Your task to perform on an android device: Add razer blackwidow to the cart on newegg, then select checkout. Image 0: 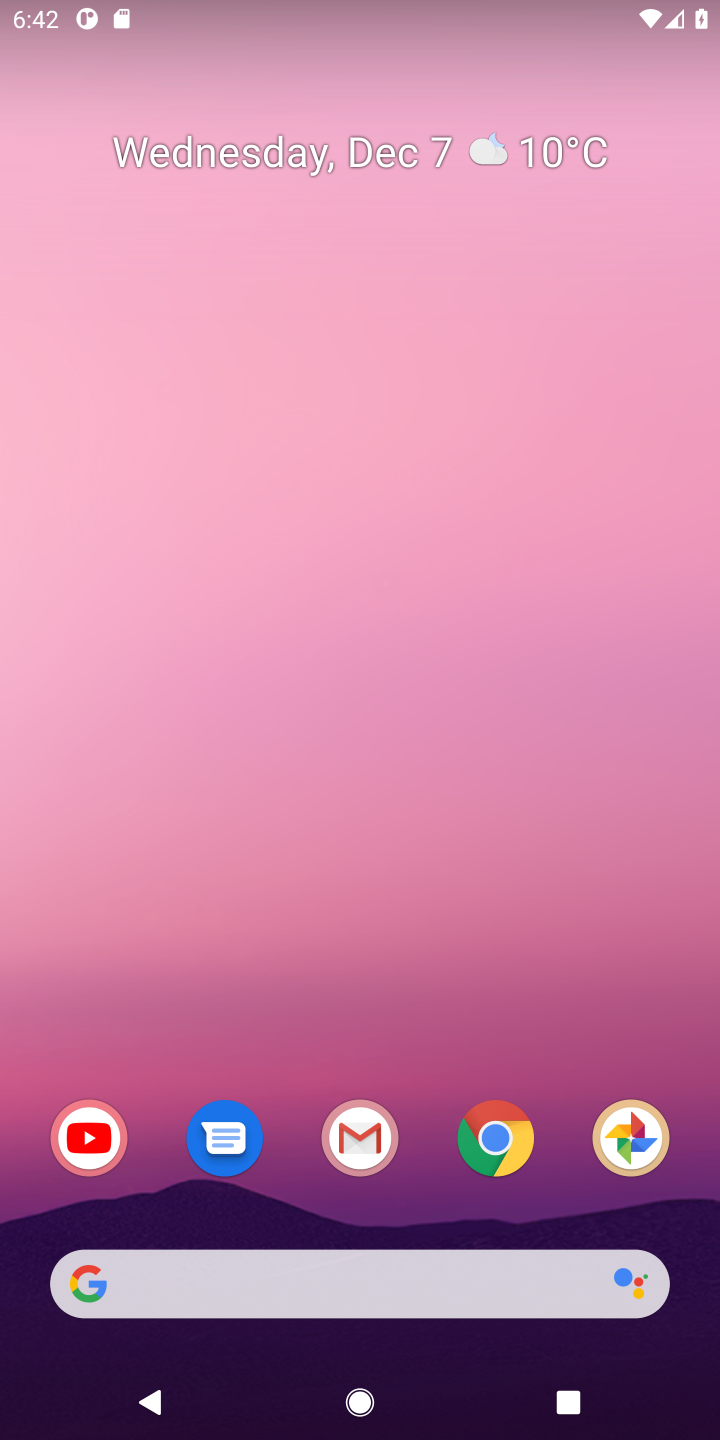
Step 0: press home button
Your task to perform on an android device: Add razer blackwidow to the cart on newegg, then select checkout. Image 1: 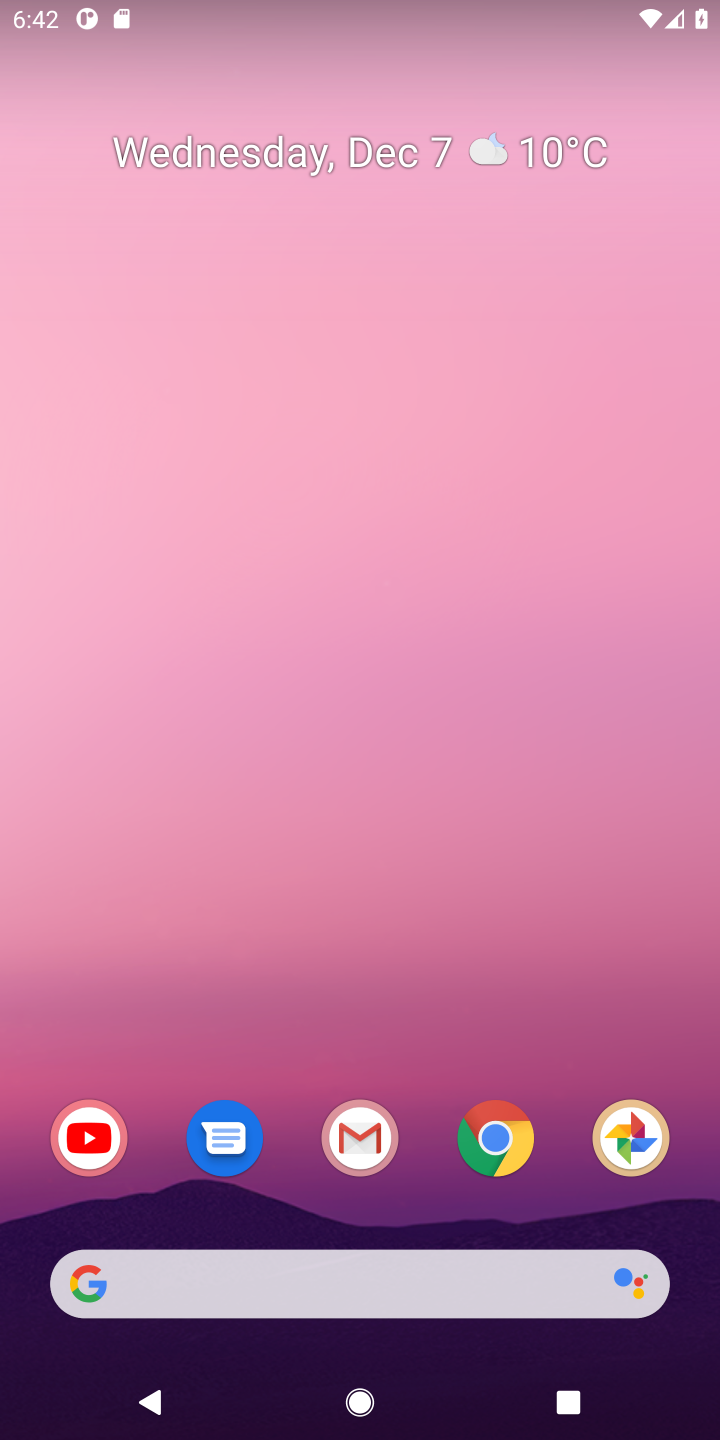
Step 1: click (144, 1276)
Your task to perform on an android device: Add razer blackwidow to the cart on newegg, then select checkout. Image 2: 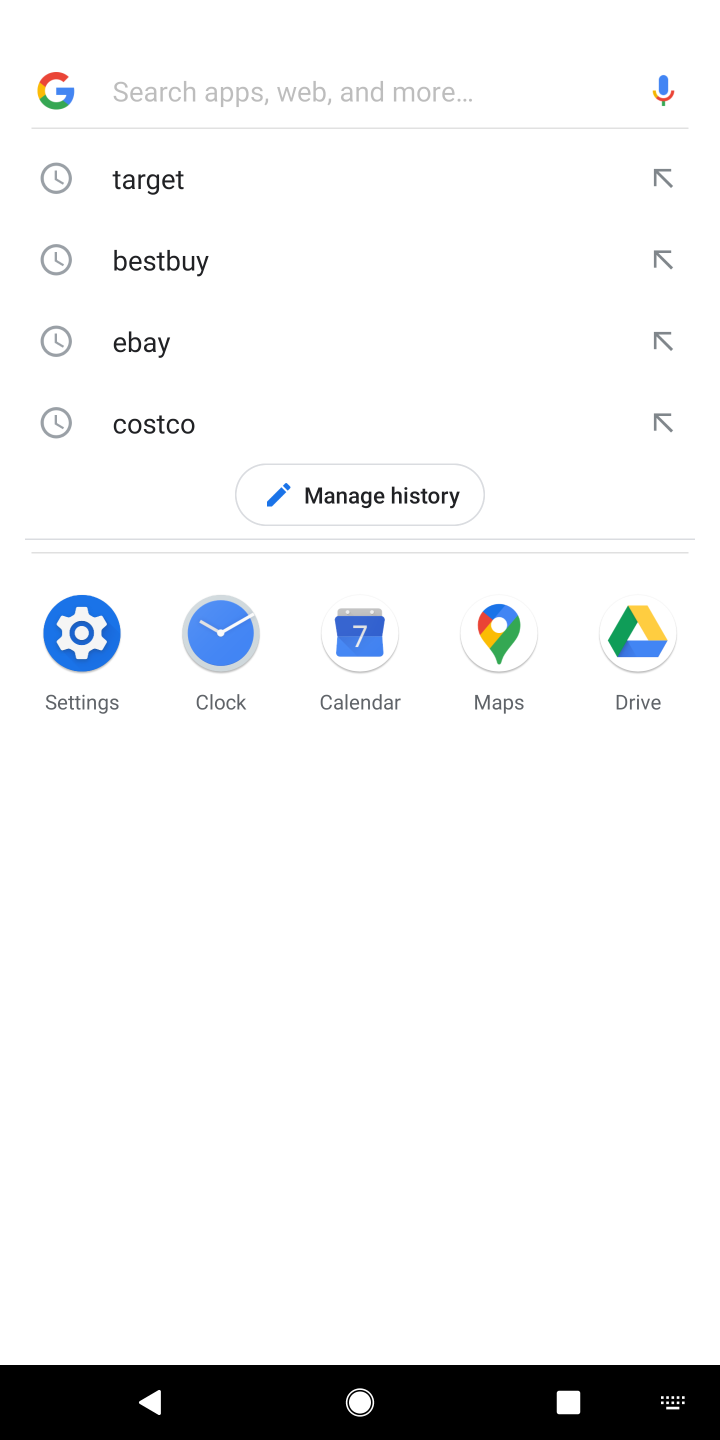
Step 2: press enter
Your task to perform on an android device: Add razer blackwidow to the cart on newegg, then select checkout. Image 3: 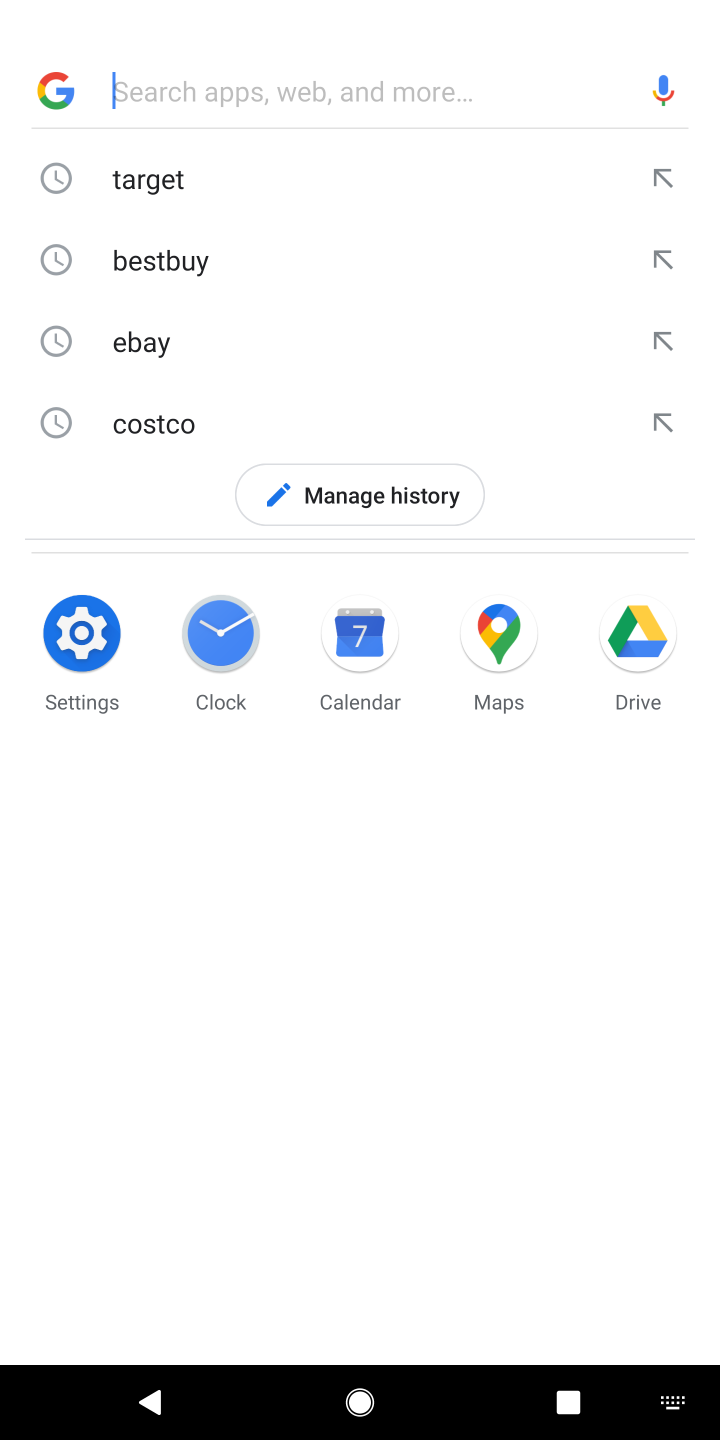
Step 3: type "newegg"
Your task to perform on an android device: Add razer blackwidow to the cart on newegg, then select checkout. Image 4: 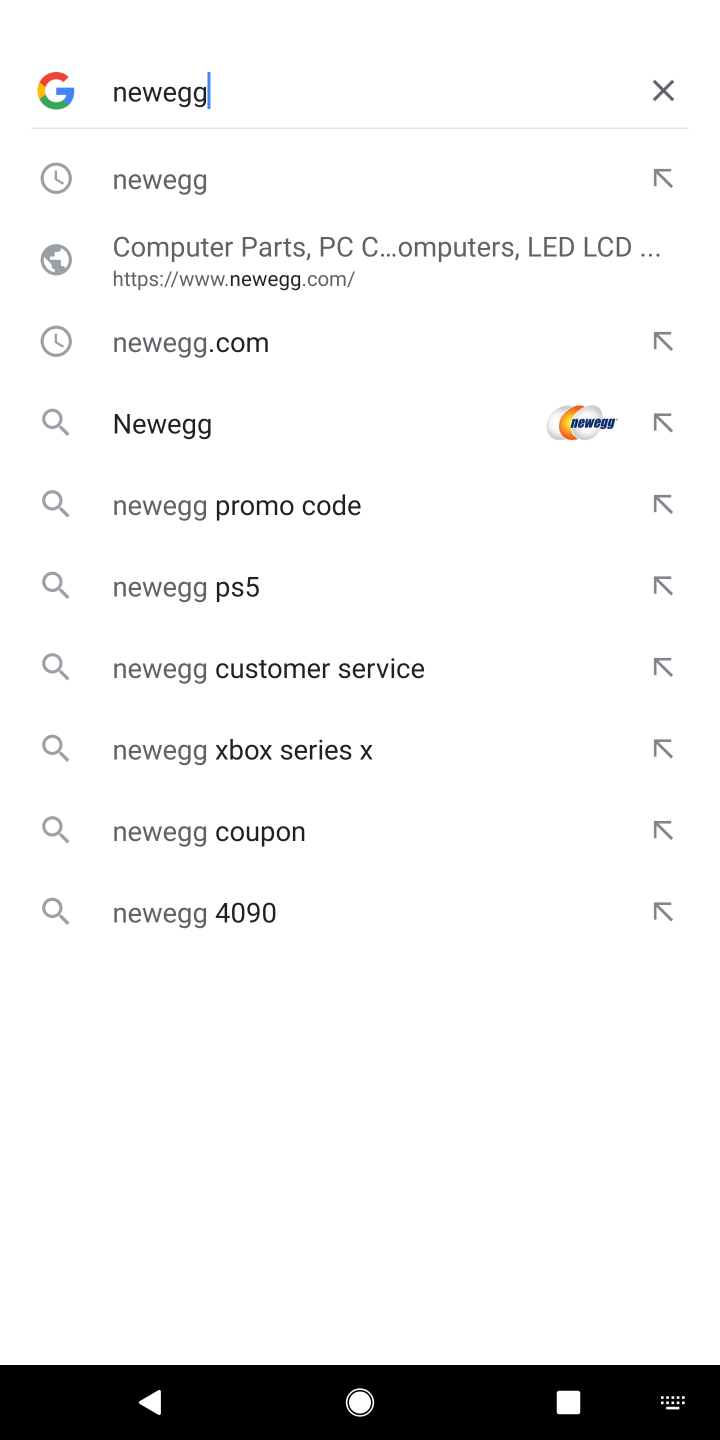
Step 4: press enter
Your task to perform on an android device: Add razer blackwidow to the cart on newegg, then select checkout. Image 5: 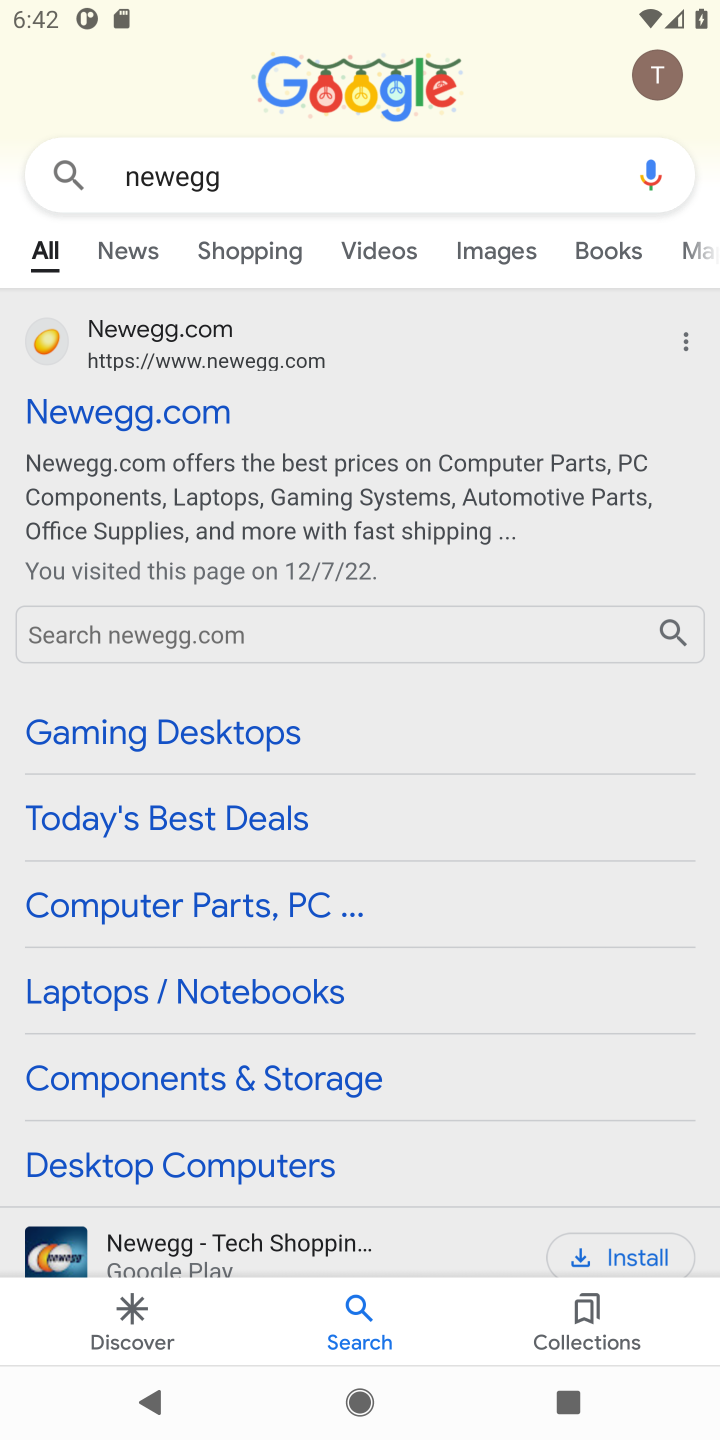
Step 5: click (132, 410)
Your task to perform on an android device: Add razer blackwidow to the cart on newegg, then select checkout. Image 6: 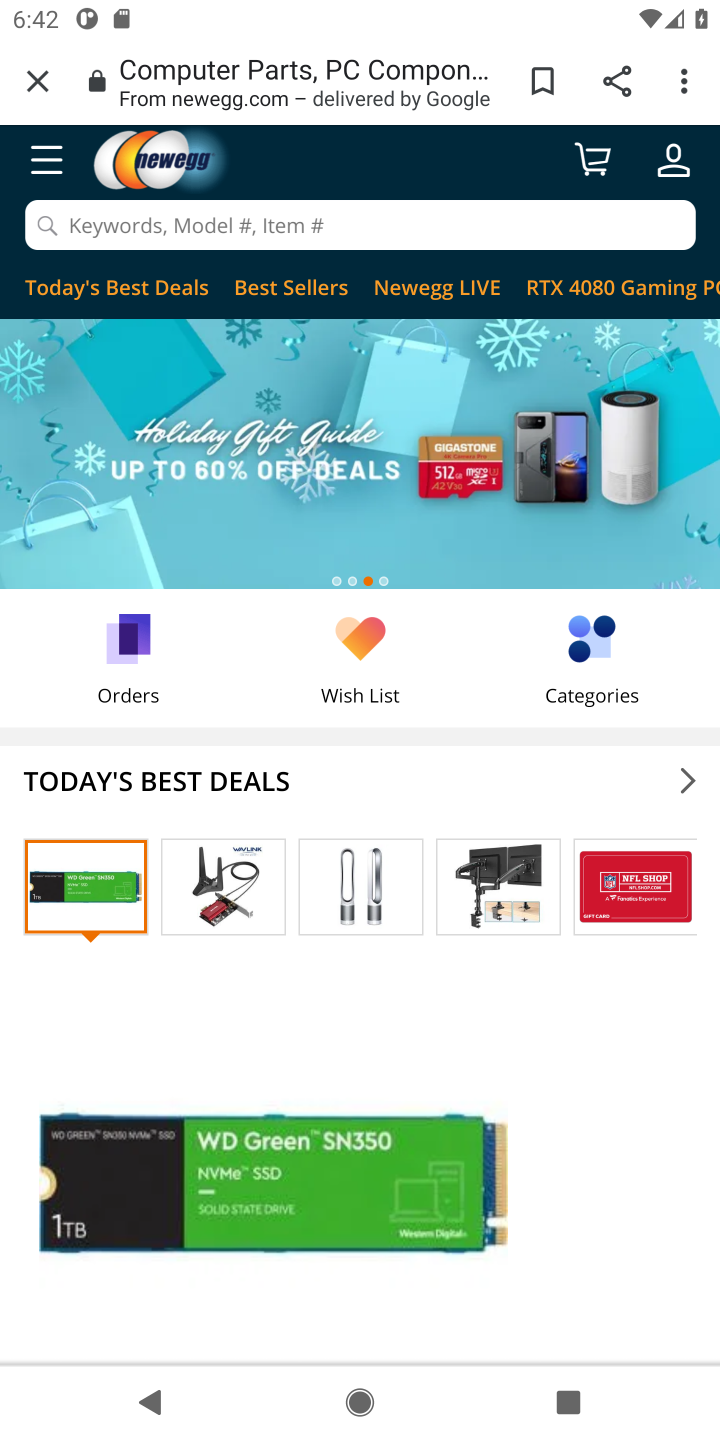
Step 6: click (286, 224)
Your task to perform on an android device: Add razer blackwidow to the cart on newegg, then select checkout. Image 7: 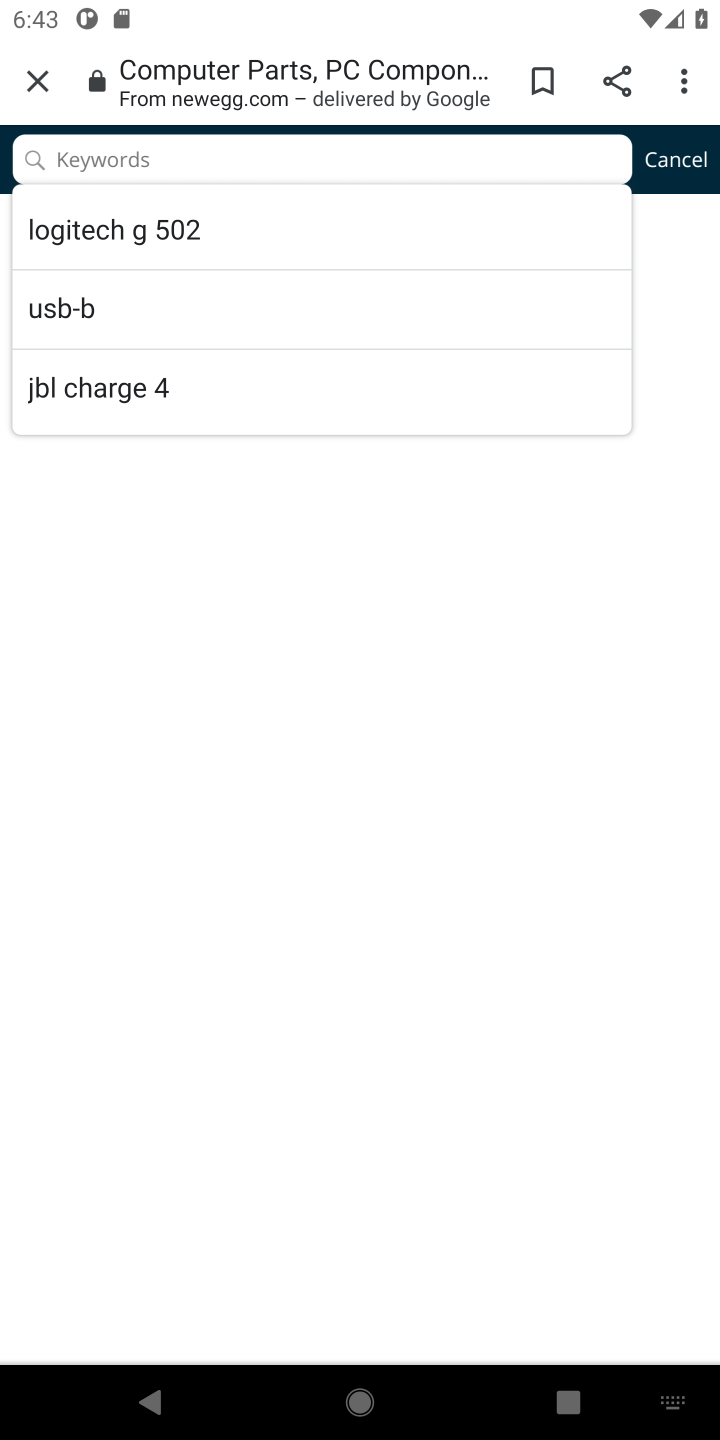
Step 7: type "razer blackwidow"
Your task to perform on an android device: Add razer blackwidow to the cart on newegg, then select checkout. Image 8: 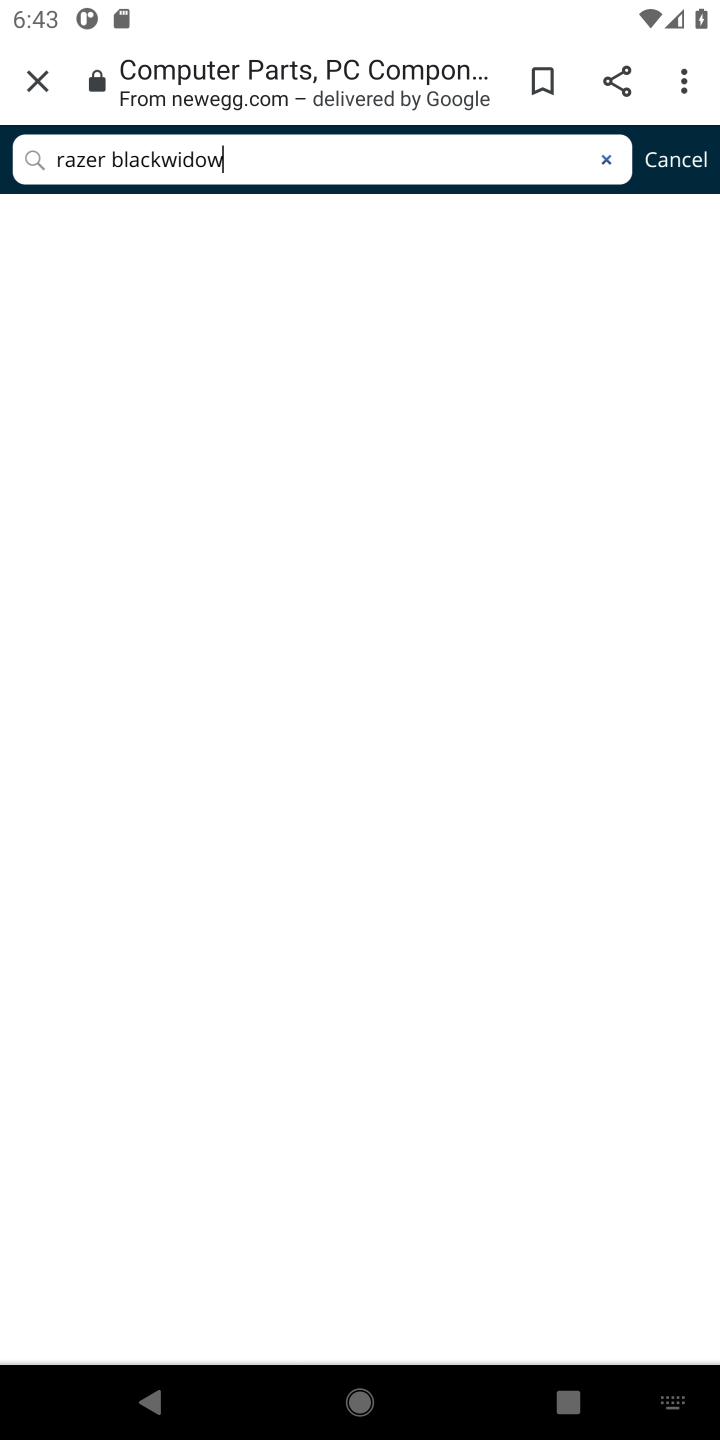
Step 8: press enter
Your task to perform on an android device: Add razer blackwidow to the cart on newegg, then select checkout. Image 9: 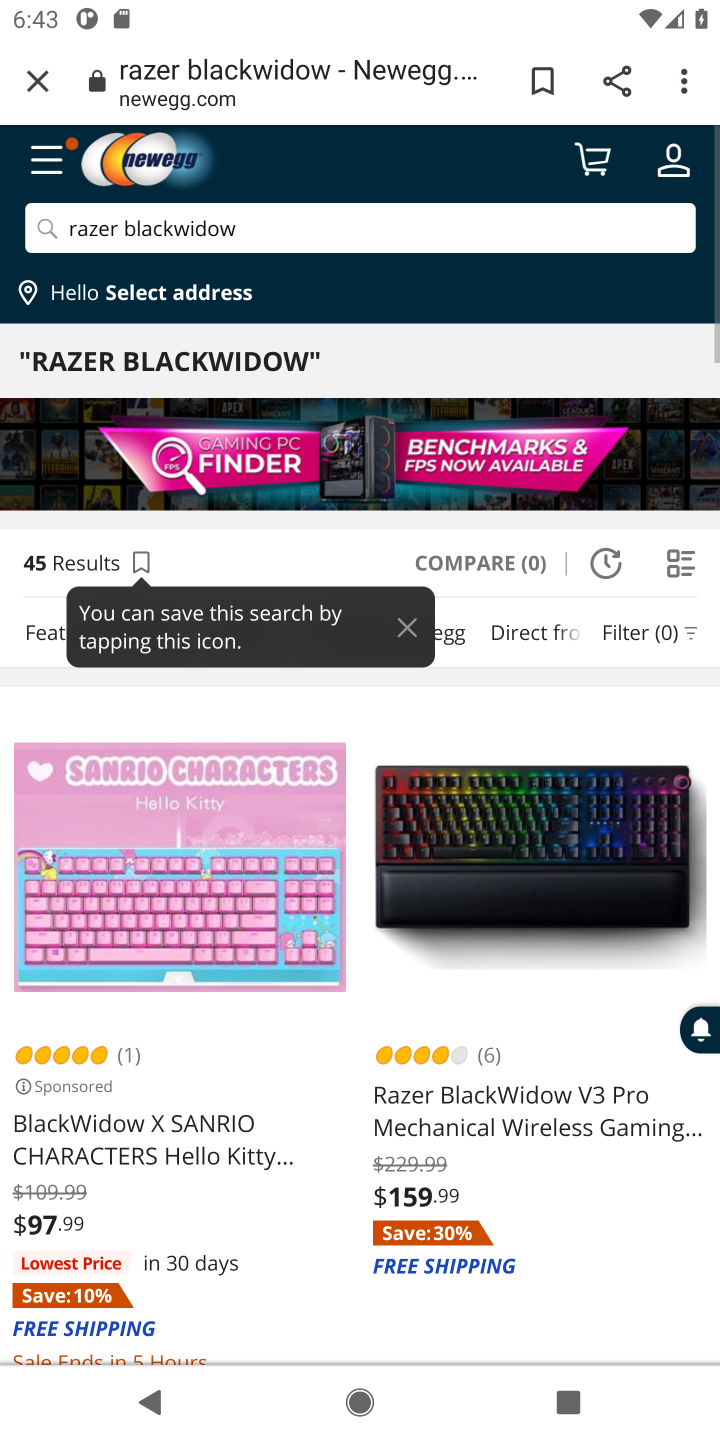
Step 9: click (505, 1089)
Your task to perform on an android device: Add razer blackwidow to the cart on newegg, then select checkout. Image 10: 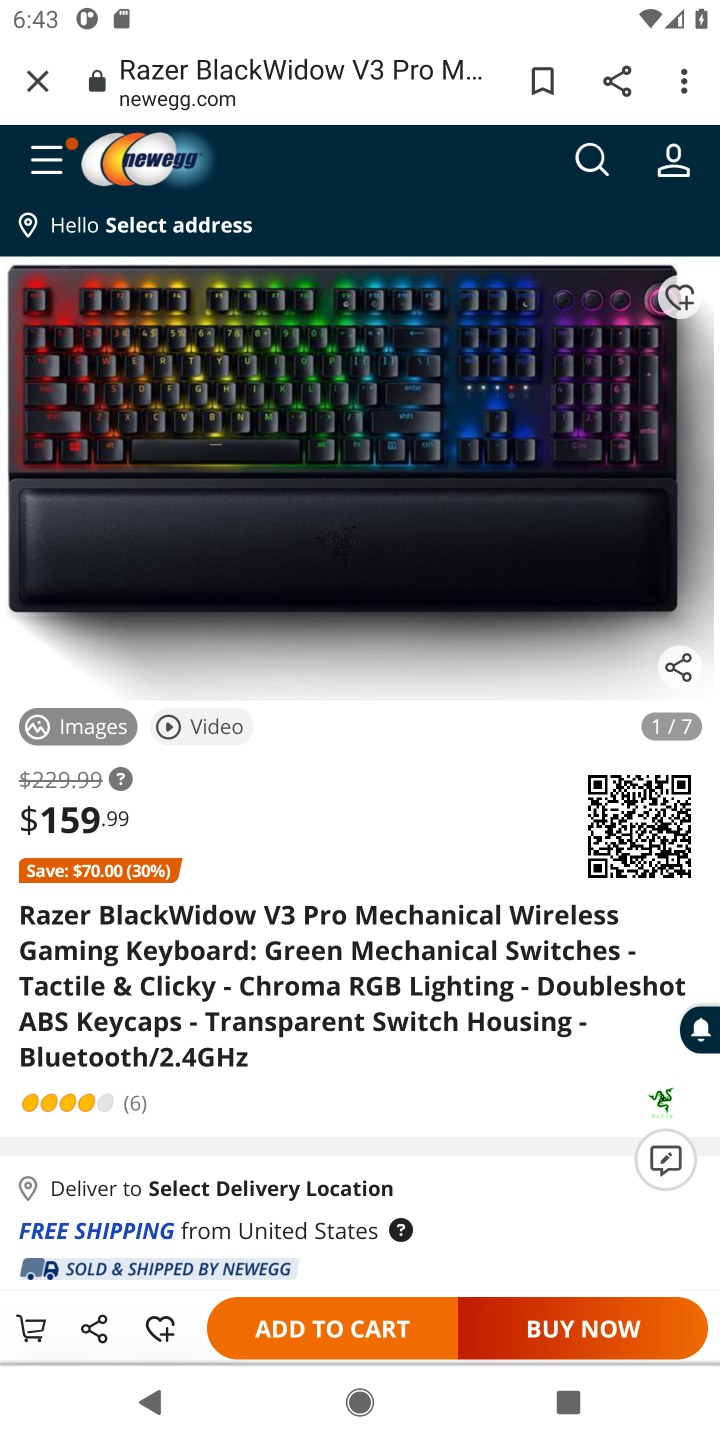
Step 10: click (324, 1336)
Your task to perform on an android device: Add razer blackwidow to the cart on newegg, then select checkout. Image 11: 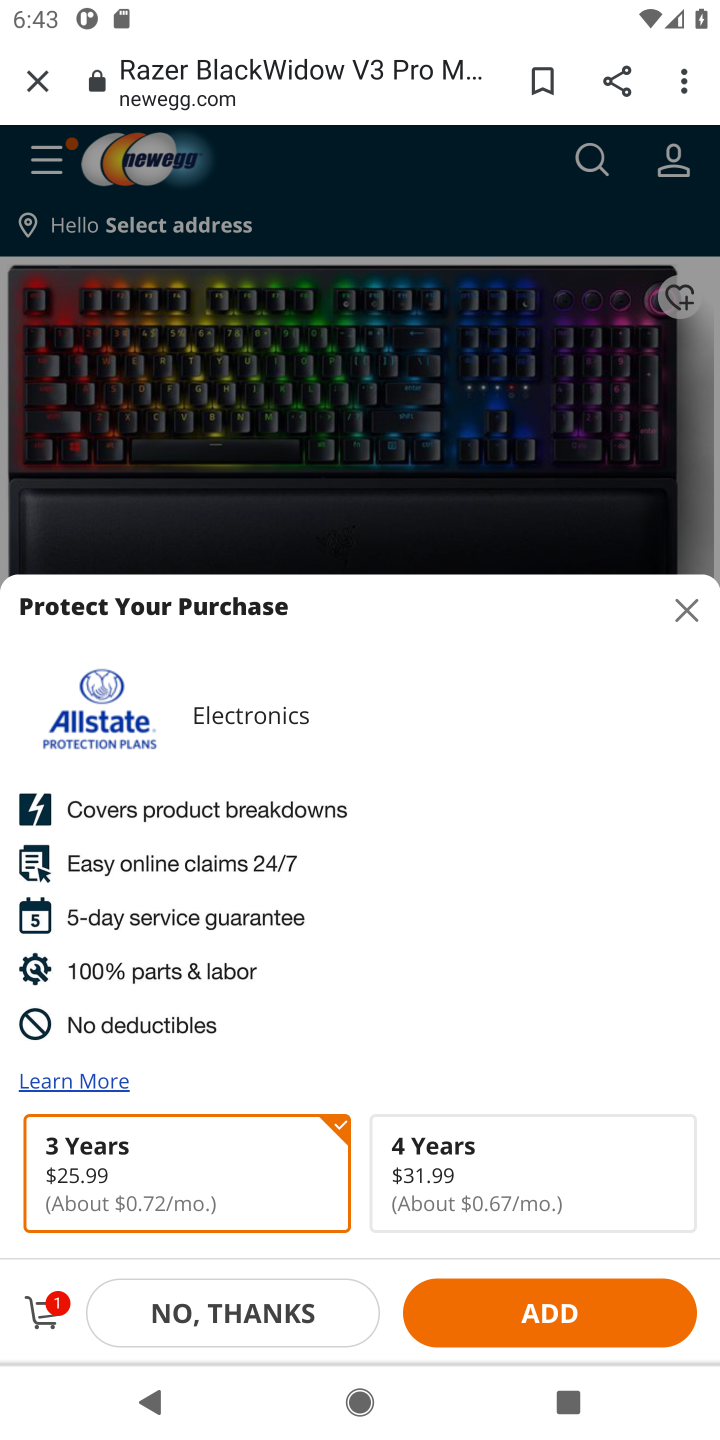
Step 11: click (216, 1320)
Your task to perform on an android device: Add razer blackwidow to the cart on newegg, then select checkout. Image 12: 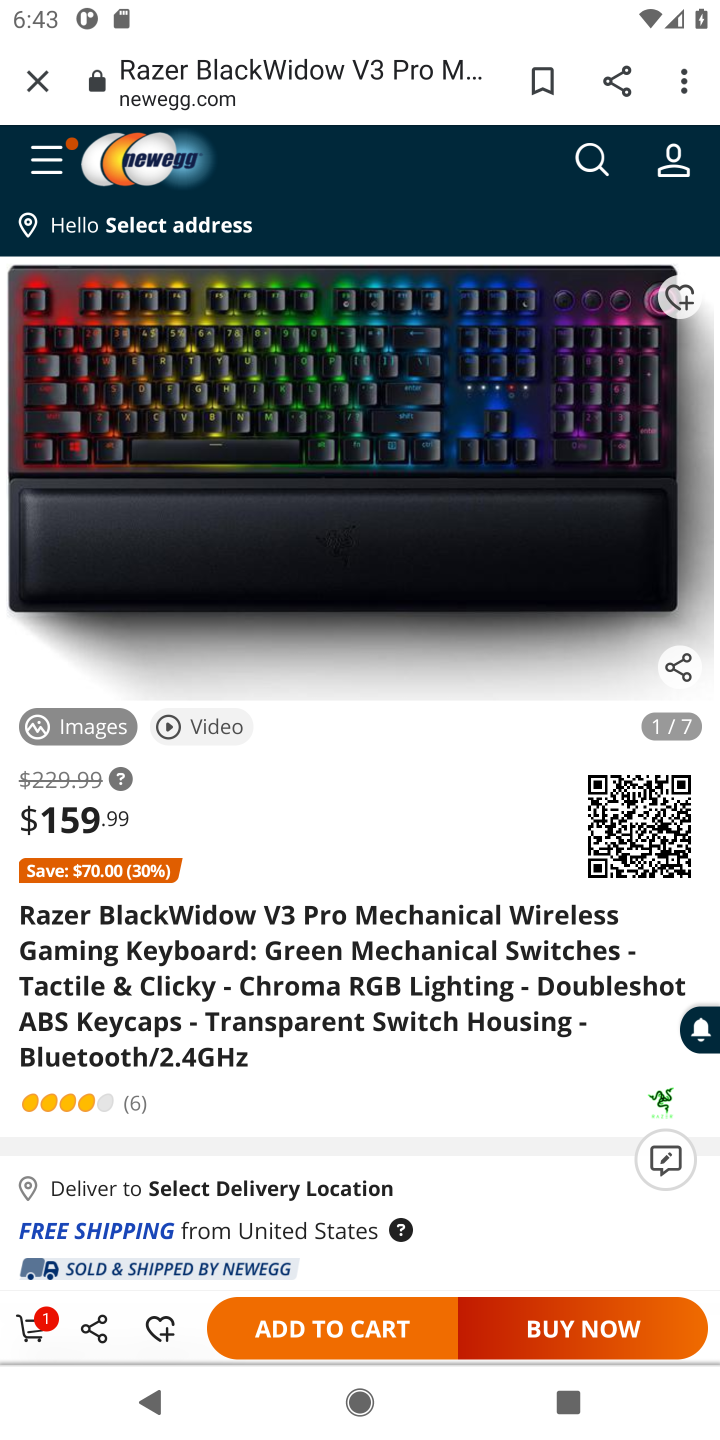
Step 12: click (28, 1323)
Your task to perform on an android device: Add razer blackwidow to the cart on newegg, then select checkout. Image 13: 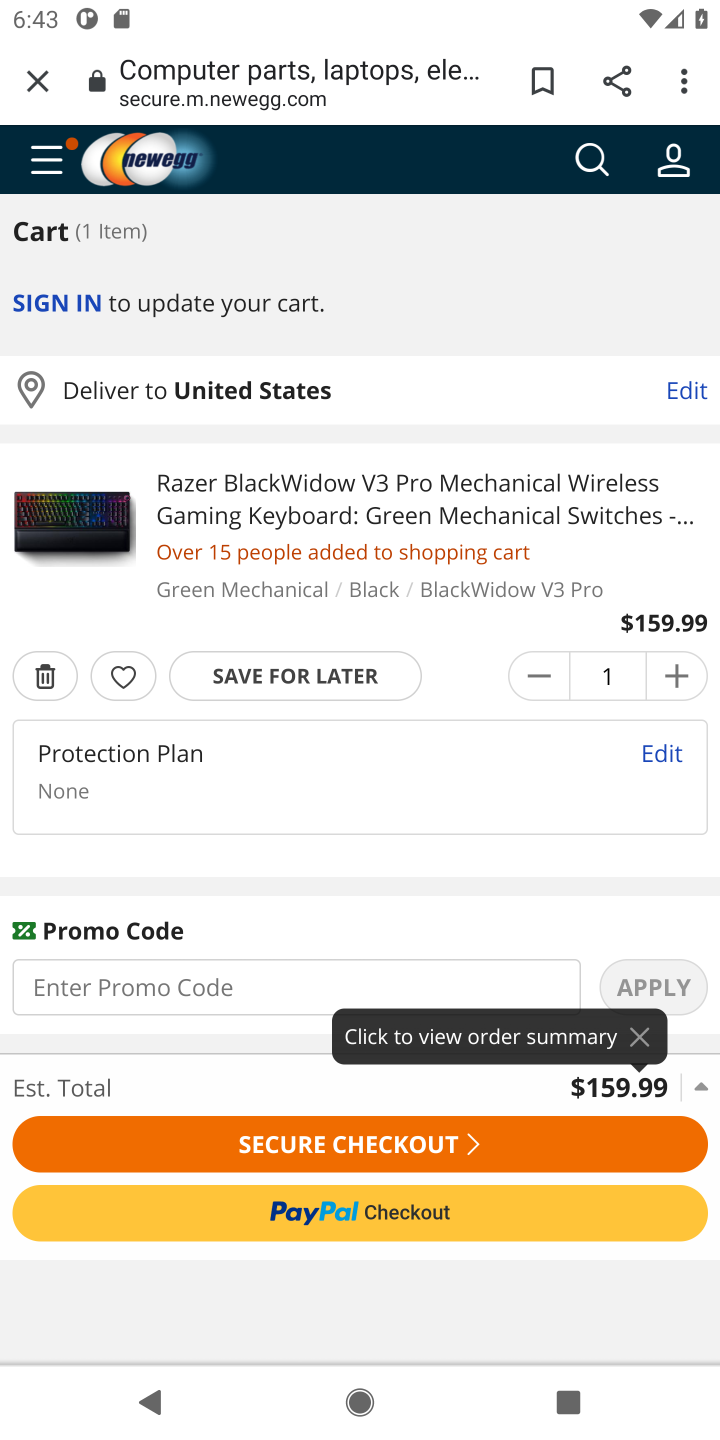
Step 13: click (405, 1143)
Your task to perform on an android device: Add razer blackwidow to the cart on newegg, then select checkout. Image 14: 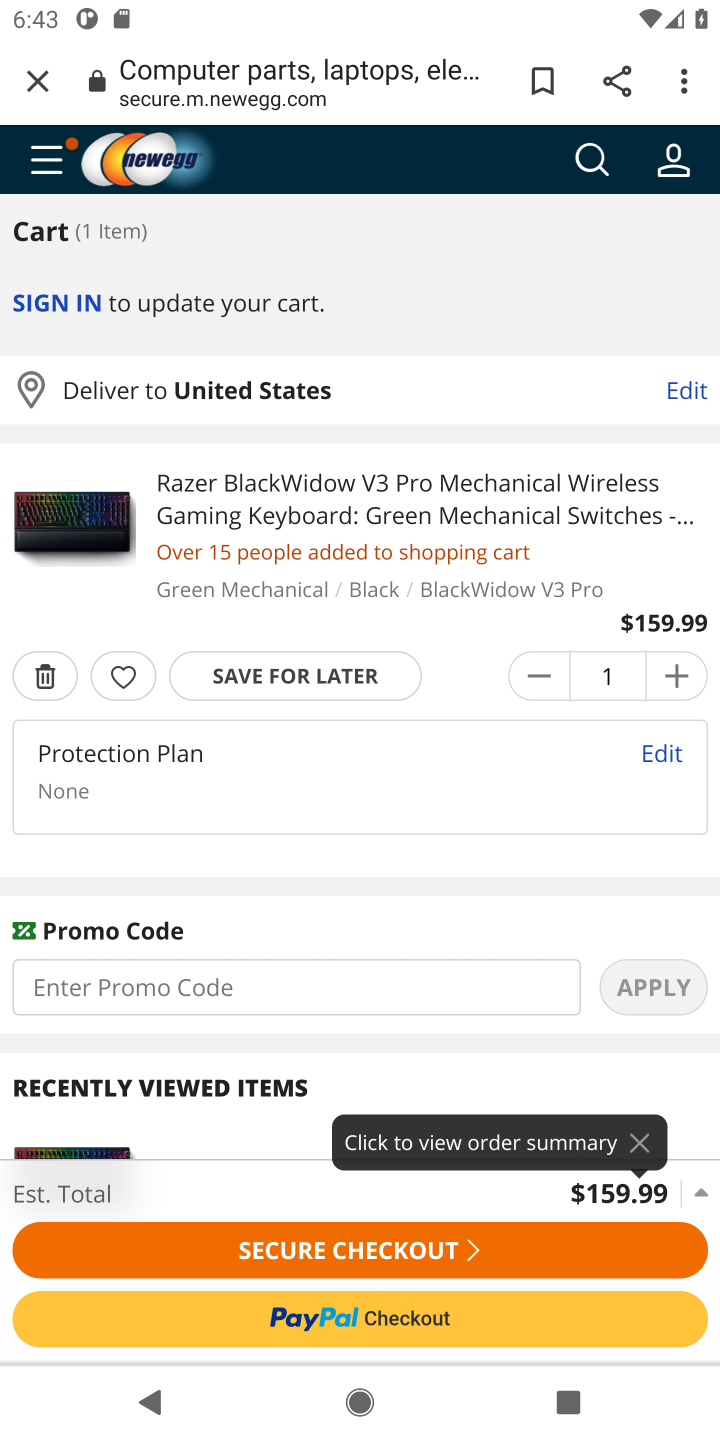
Step 14: click (272, 1253)
Your task to perform on an android device: Add razer blackwidow to the cart on newegg, then select checkout. Image 15: 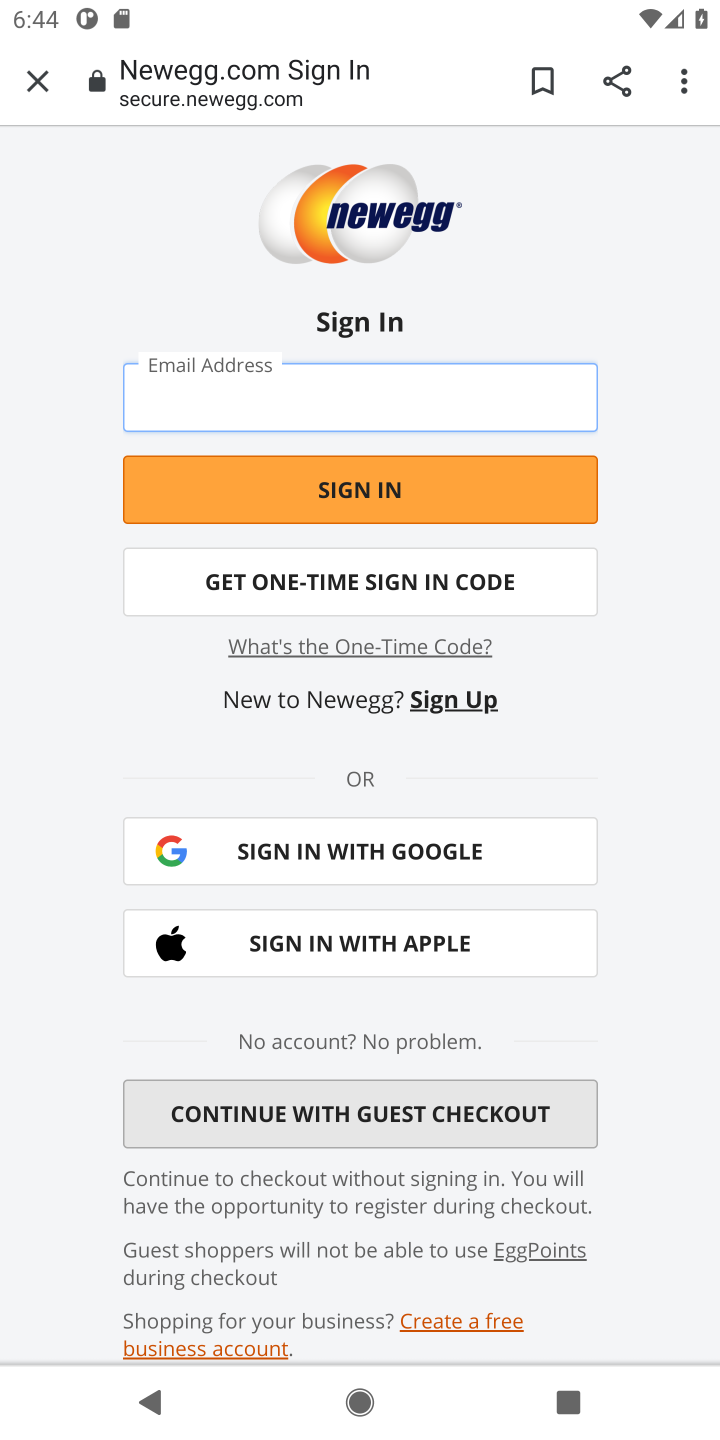
Step 15: task complete